Your task to perform on an android device: What's the weather today? Image 0: 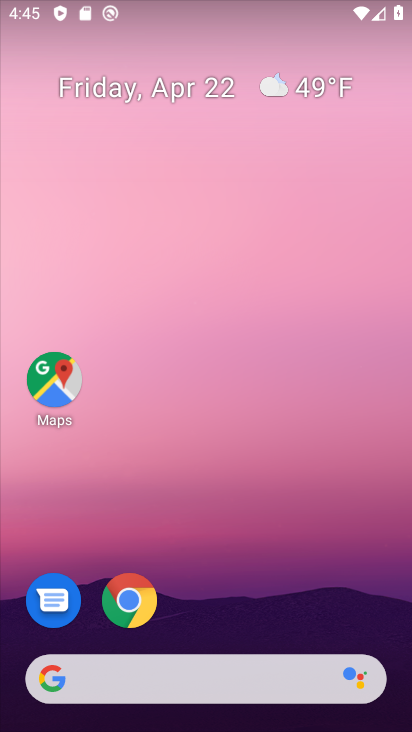
Step 0: drag from (257, 596) to (227, 39)
Your task to perform on an android device: What's the weather today? Image 1: 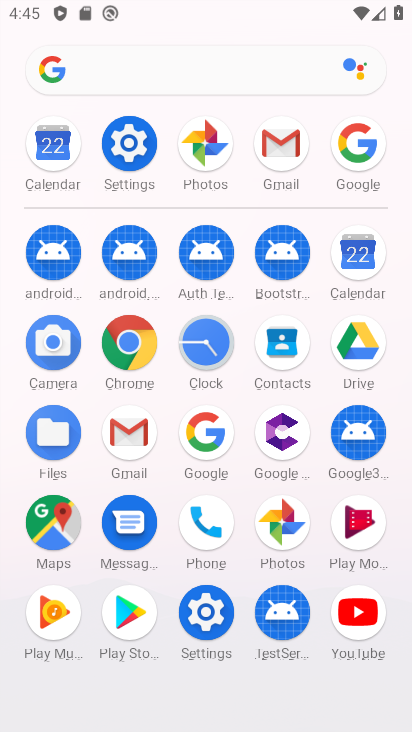
Step 1: click (354, 143)
Your task to perform on an android device: What's the weather today? Image 2: 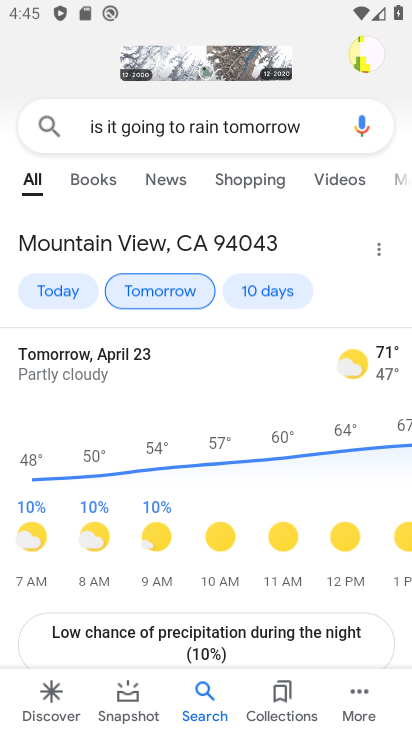
Step 2: click (62, 289)
Your task to perform on an android device: What's the weather today? Image 3: 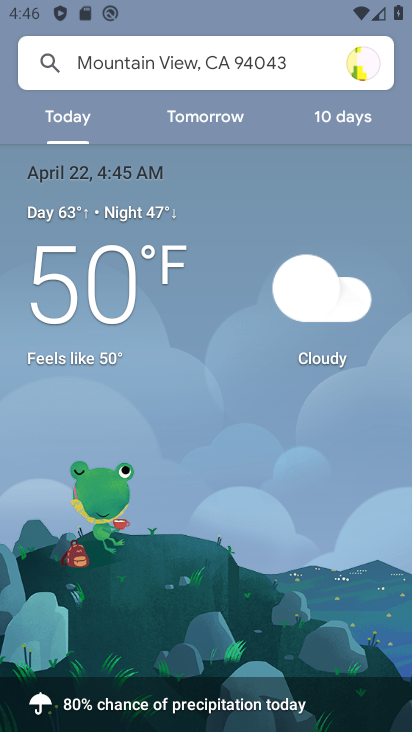
Step 3: task complete